Your task to perform on an android device: star an email in the gmail app Image 0: 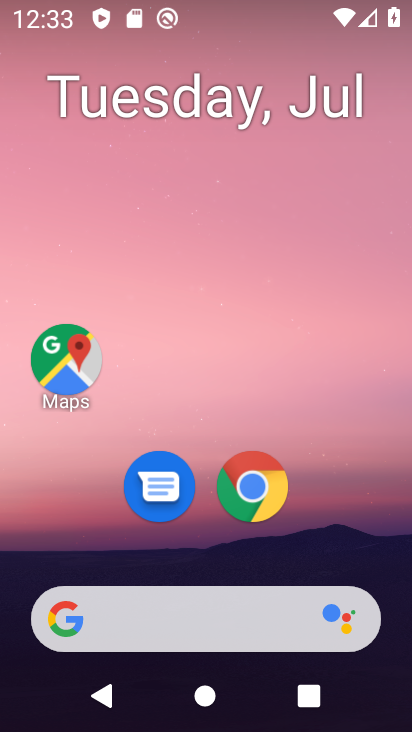
Step 0: drag from (341, 556) to (331, 86)
Your task to perform on an android device: star an email in the gmail app Image 1: 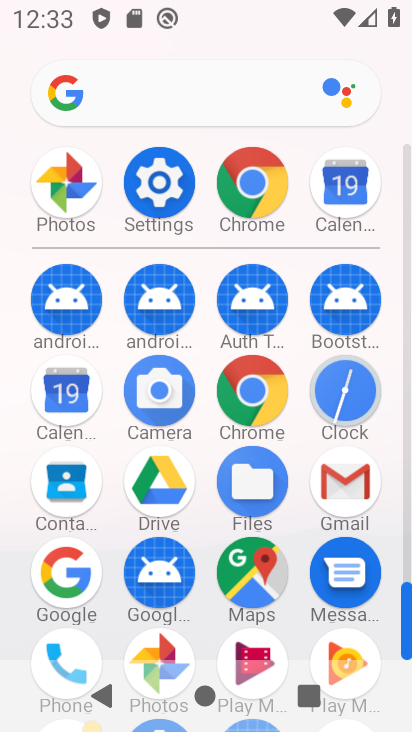
Step 1: click (353, 486)
Your task to perform on an android device: star an email in the gmail app Image 2: 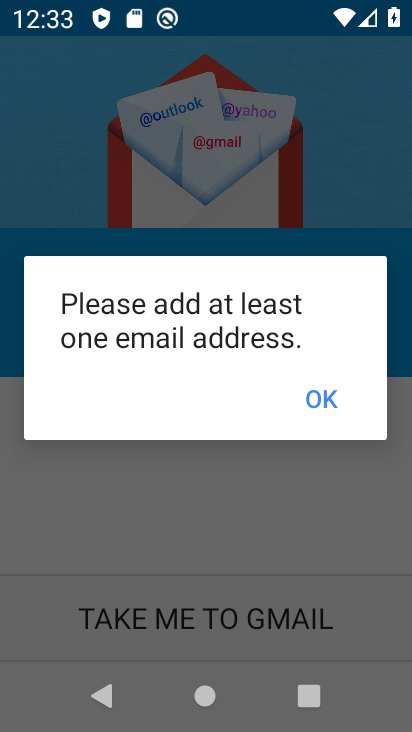
Step 2: task complete